Your task to perform on an android device: Go to Google maps Image 0: 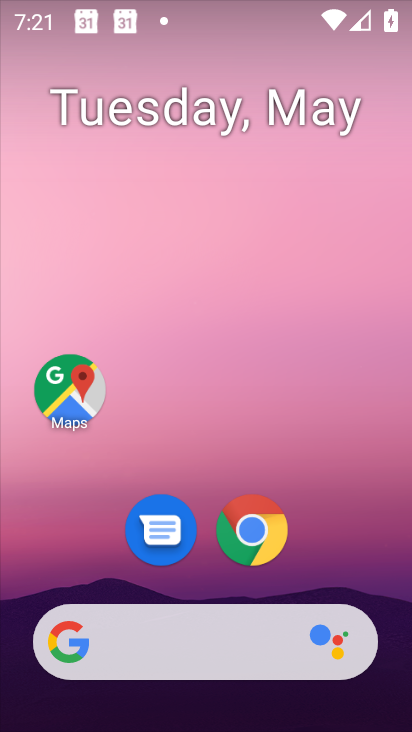
Step 0: click (71, 398)
Your task to perform on an android device: Go to Google maps Image 1: 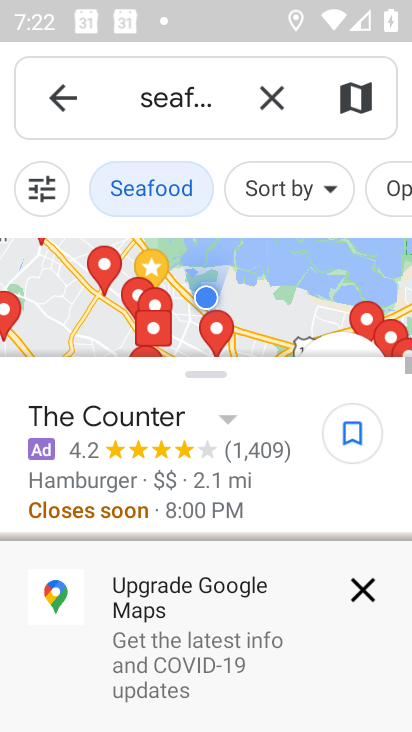
Step 1: click (352, 591)
Your task to perform on an android device: Go to Google maps Image 2: 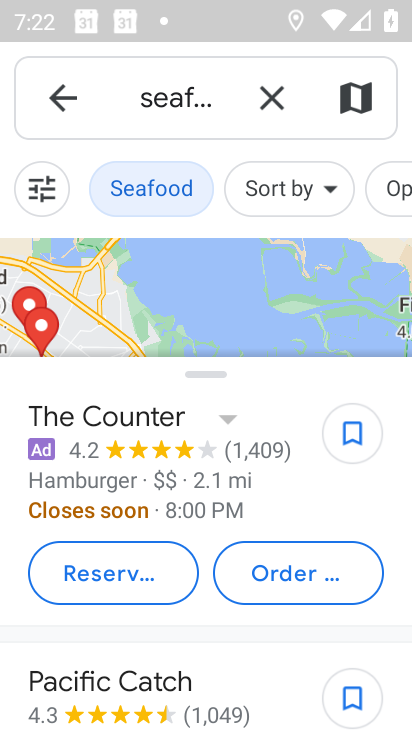
Step 2: click (268, 98)
Your task to perform on an android device: Go to Google maps Image 3: 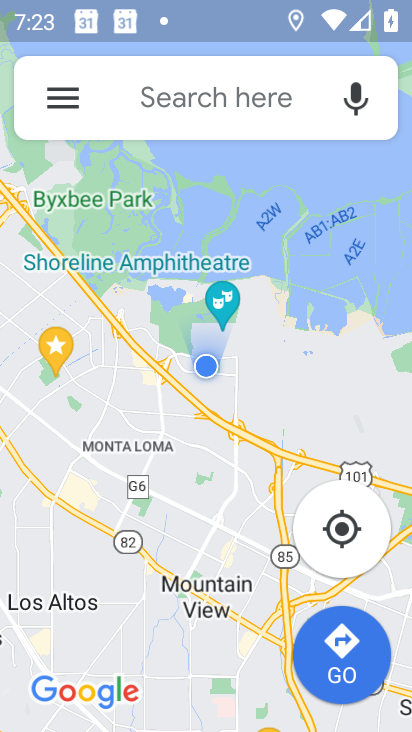
Step 3: task complete